Your task to perform on an android device: Open calendar and show me the first week of next month Image 0: 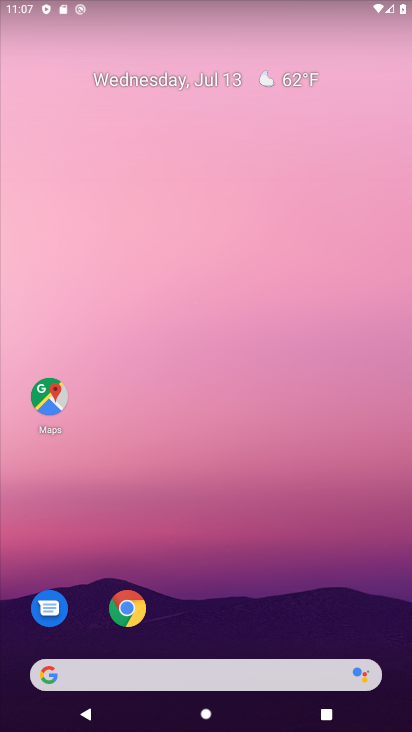
Step 0: drag from (238, 727) to (235, 136)
Your task to perform on an android device: Open calendar and show me the first week of next month Image 1: 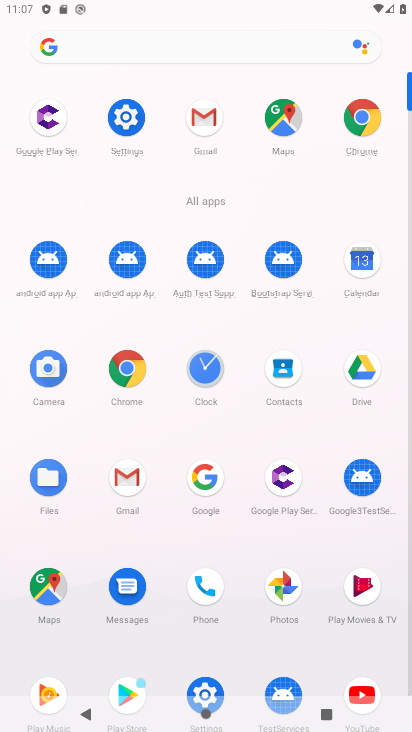
Step 1: click (363, 257)
Your task to perform on an android device: Open calendar and show me the first week of next month Image 2: 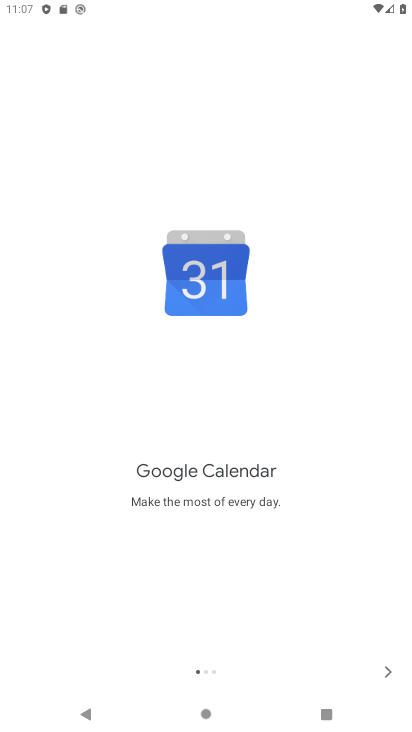
Step 2: click (390, 672)
Your task to perform on an android device: Open calendar and show me the first week of next month Image 3: 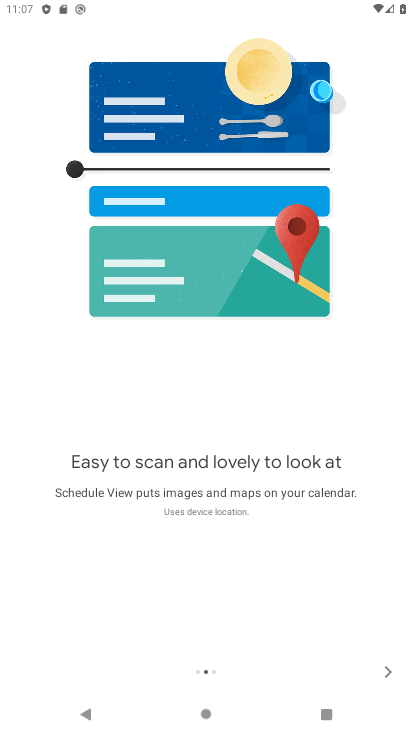
Step 3: click (390, 672)
Your task to perform on an android device: Open calendar and show me the first week of next month Image 4: 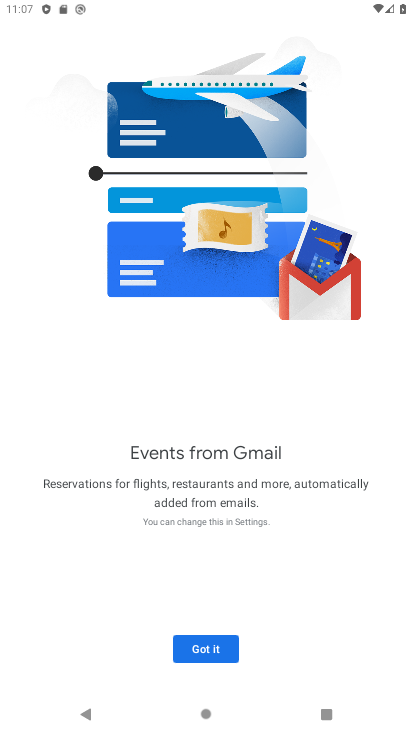
Step 4: click (210, 643)
Your task to perform on an android device: Open calendar and show me the first week of next month Image 5: 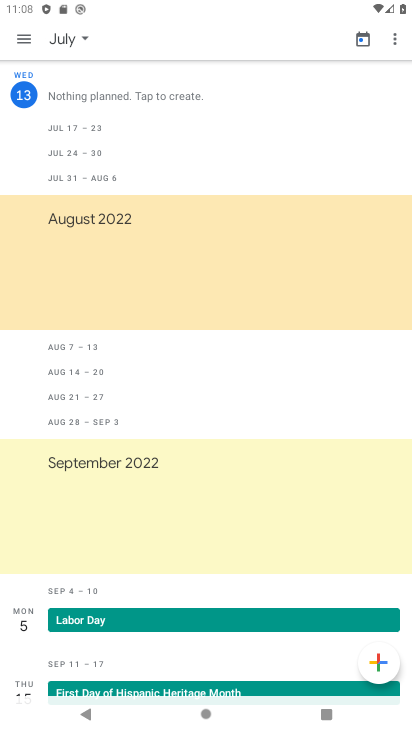
Step 5: click (86, 35)
Your task to perform on an android device: Open calendar and show me the first week of next month Image 6: 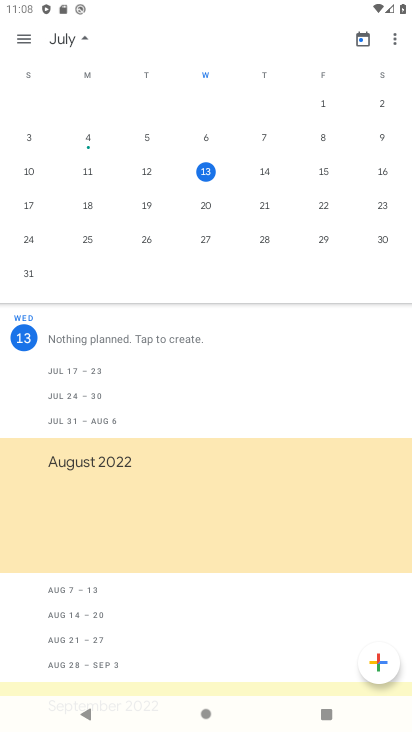
Step 6: drag from (333, 173) to (32, 183)
Your task to perform on an android device: Open calendar and show me the first week of next month Image 7: 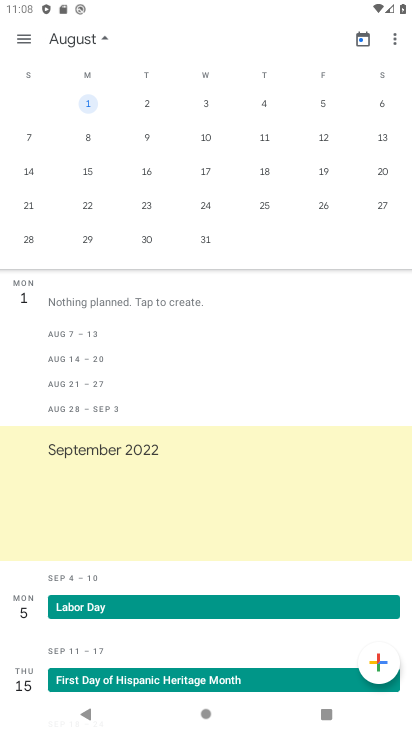
Step 7: click (23, 42)
Your task to perform on an android device: Open calendar and show me the first week of next month Image 8: 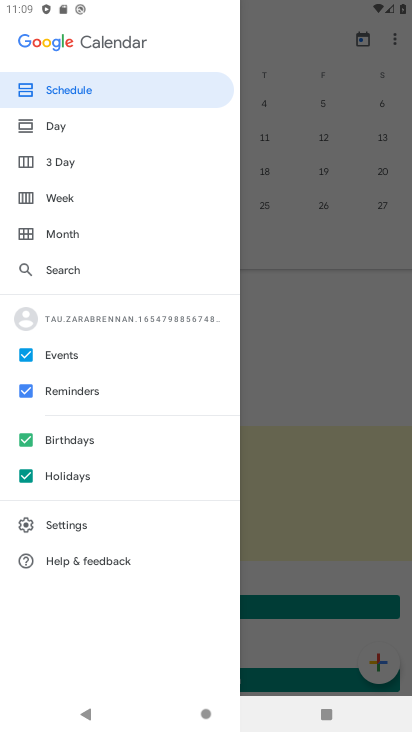
Step 8: click (62, 197)
Your task to perform on an android device: Open calendar and show me the first week of next month Image 9: 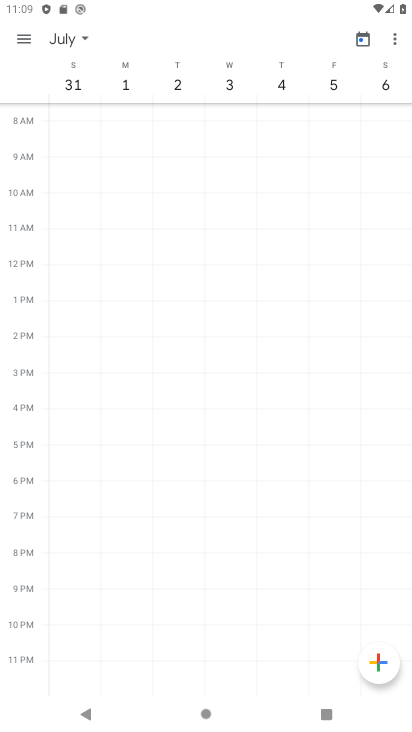
Step 9: task complete